Your task to perform on an android device: delete the emails in spam in the gmail app Image 0: 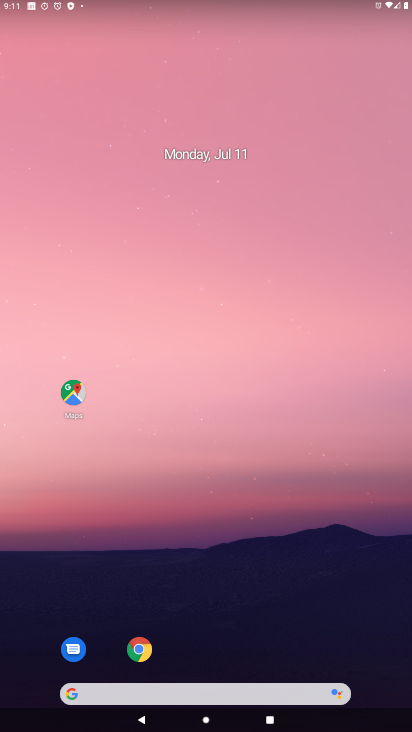
Step 0: drag from (179, 689) to (224, 46)
Your task to perform on an android device: delete the emails in spam in the gmail app Image 1: 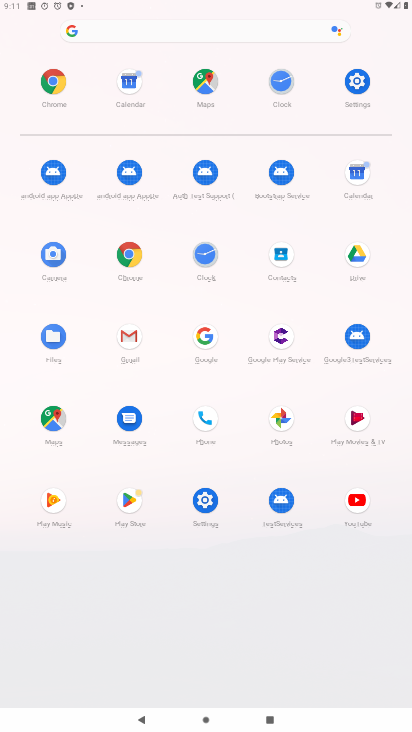
Step 1: click (128, 333)
Your task to perform on an android device: delete the emails in spam in the gmail app Image 2: 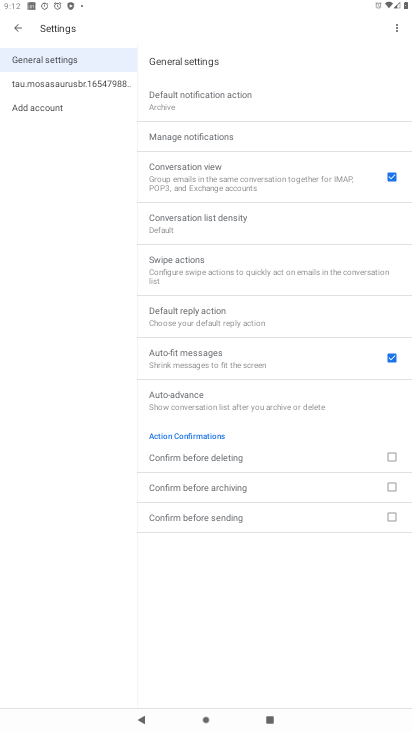
Step 2: press back button
Your task to perform on an android device: delete the emails in spam in the gmail app Image 3: 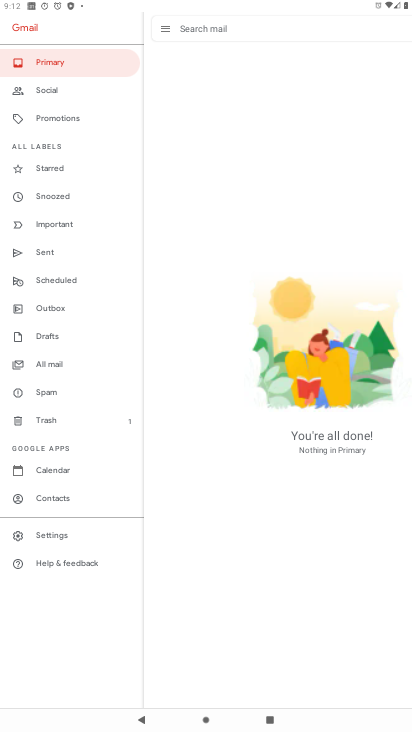
Step 3: click (50, 391)
Your task to perform on an android device: delete the emails in spam in the gmail app Image 4: 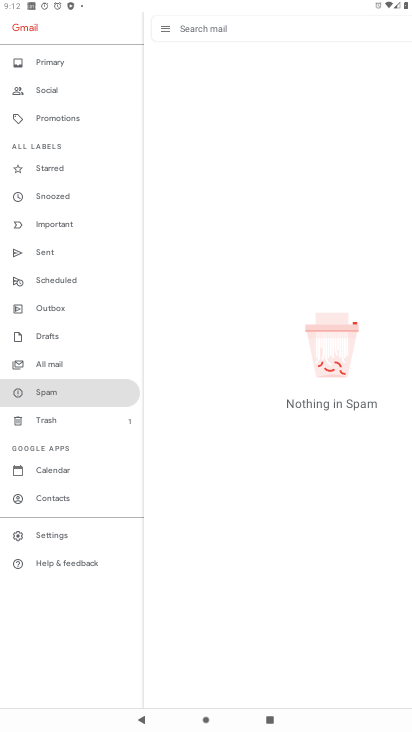
Step 4: task complete